Your task to perform on an android device: turn notification dots on Image 0: 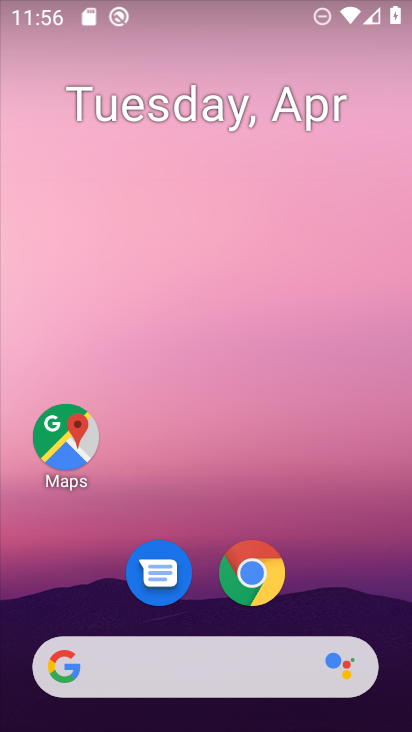
Step 0: drag from (405, 621) to (280, 55)
Your task to perform on an android device: turn notification dots on Image 1: 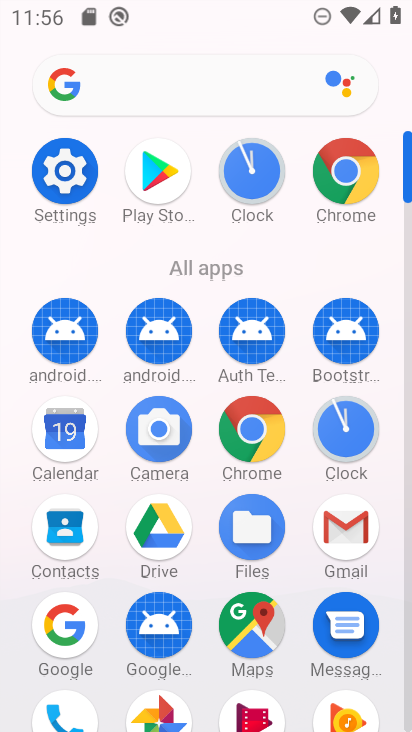
Step 1: click (67, 176)
Your task to perform on an android device: turn notification dots on Image 2: 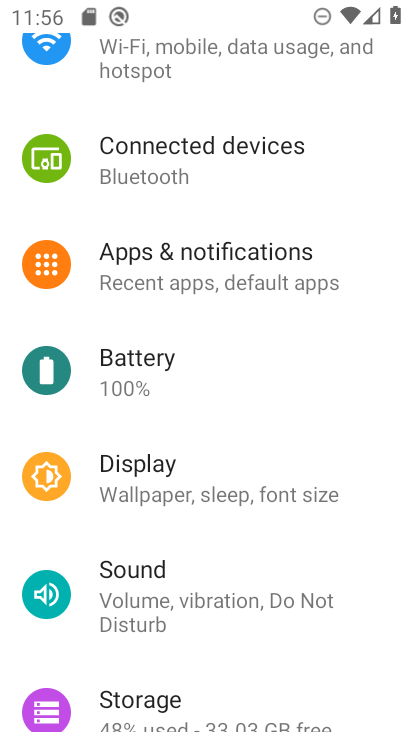
Step 2: click (231, 252)
Your task to perform on an android device: turn notification dots on Image 3: 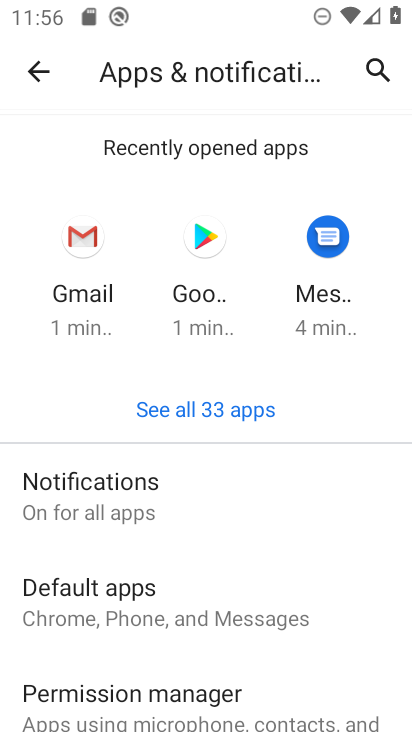
Step 3: click (270, 497)
Your task to perform on an android device: turn notification dots on Image 4: 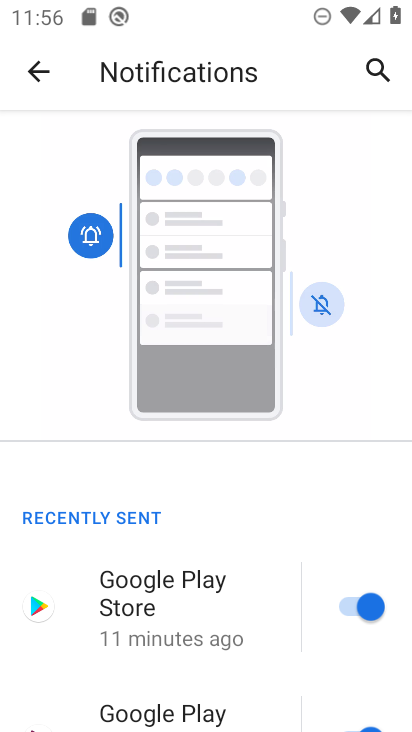
Step 4: drag from (289, 654) to (242, 233)
Your task to perform on an android device: turn notification dots on Image 5: 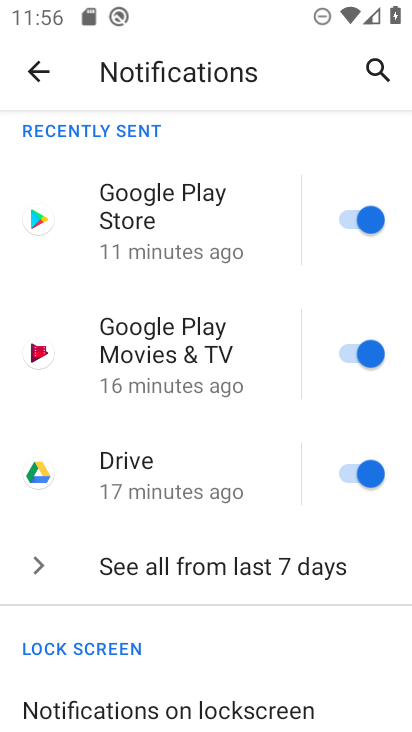
Step 5: drag from (280, 551) to (248, 231)
Your task to perform on an android device: turn notification dots on Image 6: 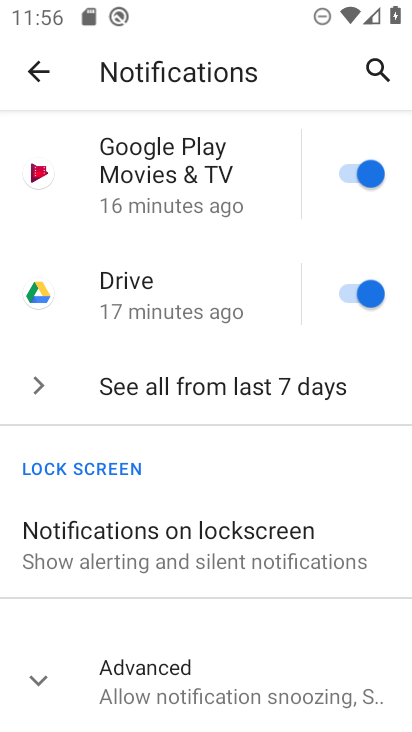
Step 6: click (323, 660)
Your task to perform on an android device: turn notification dots on Image 7: 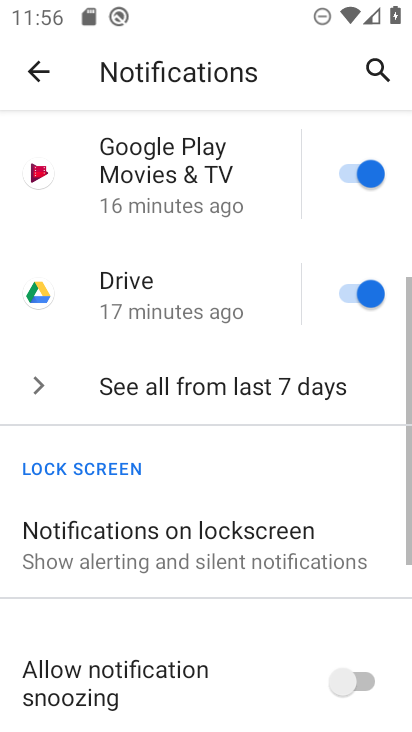
Step 7: task complete